Your task to perform on an android device: Open Amazon Image 0: 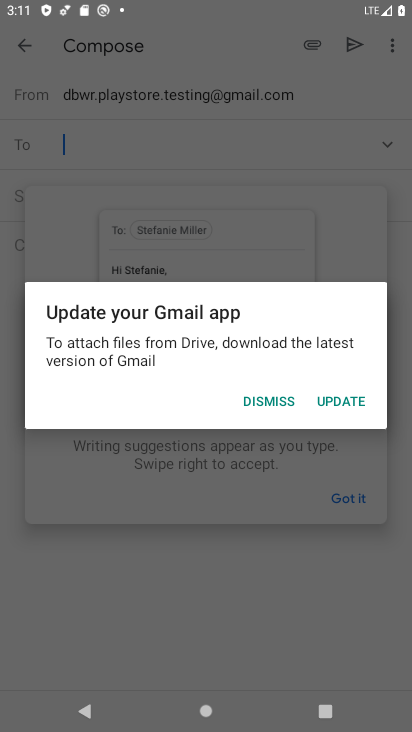
Step 0: press home button
Your task to perform on an android device: Open Amazon Image 1: 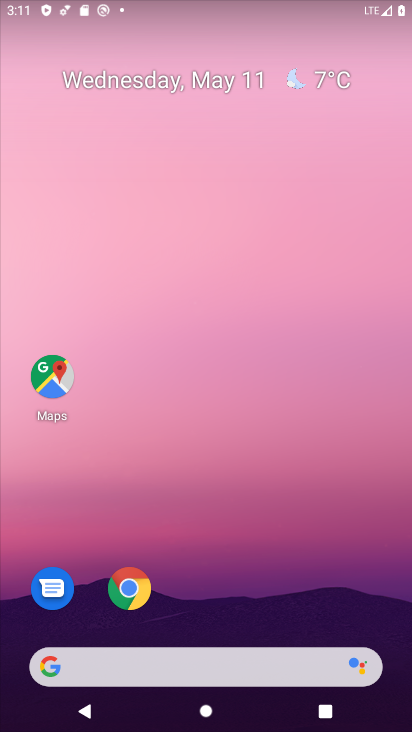
Step 1: drag from (223, 638) to (230, 67)
Your task to perform on an android device: Open Amazon Image 2: 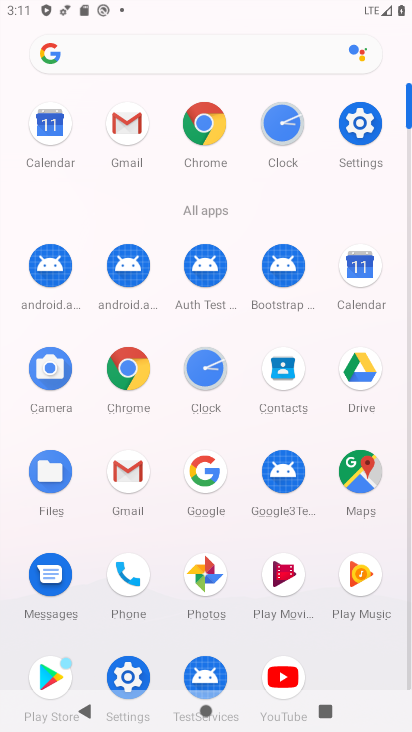
Step 2: click (201, 123)
Your task to perform on an android device: Open Amazon Image 3: 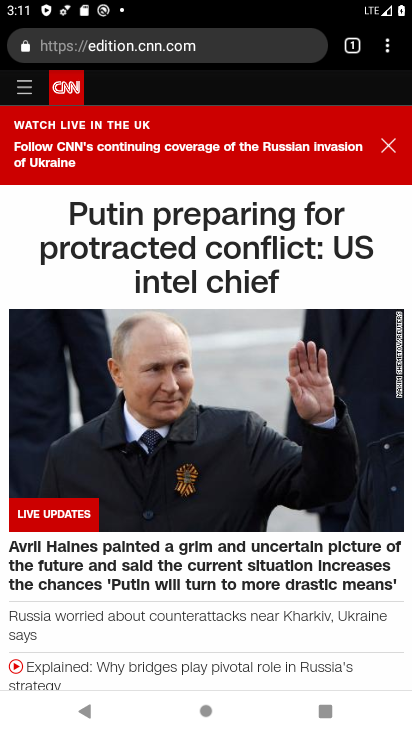
Step 3: click (390, 53)
Your task to perform on an android device: Open Amazon Image 4: 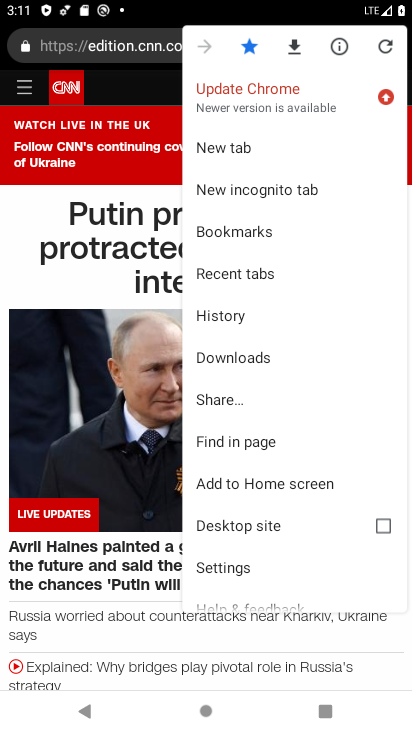
Step 4: click (227, 149)
Your task to perform on an android device: Open Amazon Image 5: 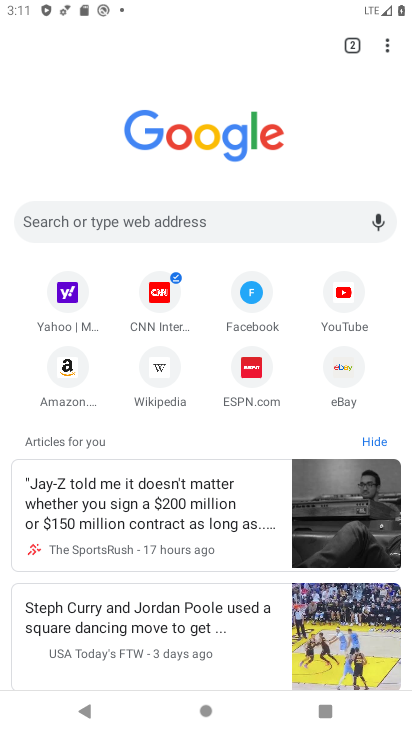
Step 5: click (68, 364)
Your task to perform on an android device: Open Amazon Image 6: 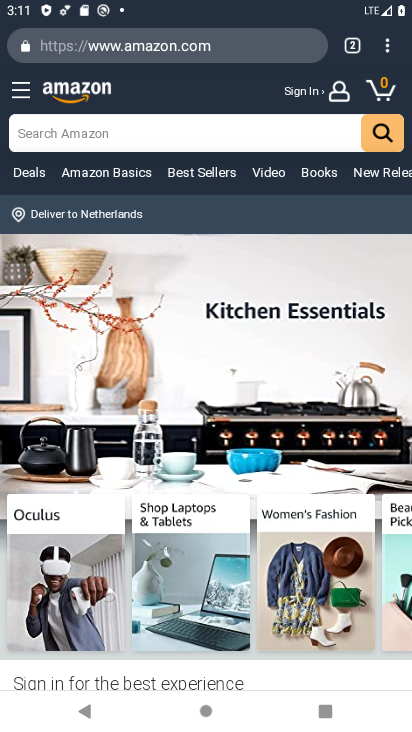
Step 6: task complete